Your task to perform on an android device: open app "Firefox Browser" (install if not already installed), go to login, and select forgot password Image 0: 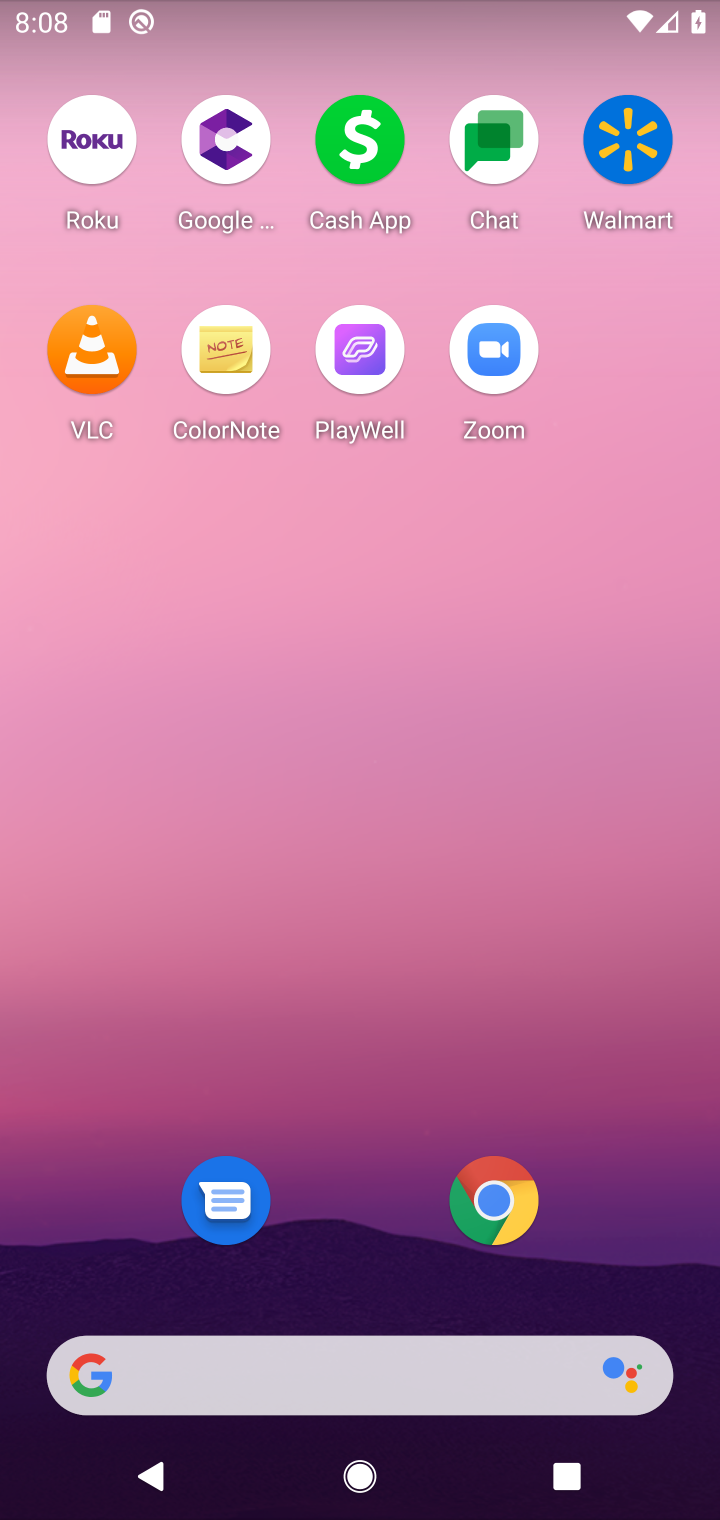
Step 0: drag from (349, 1005) to (299, 0)
Your task to perform on an android device: open app "Firefox Browser" (install if not already installed), go to login, and select forgot password Image 1: 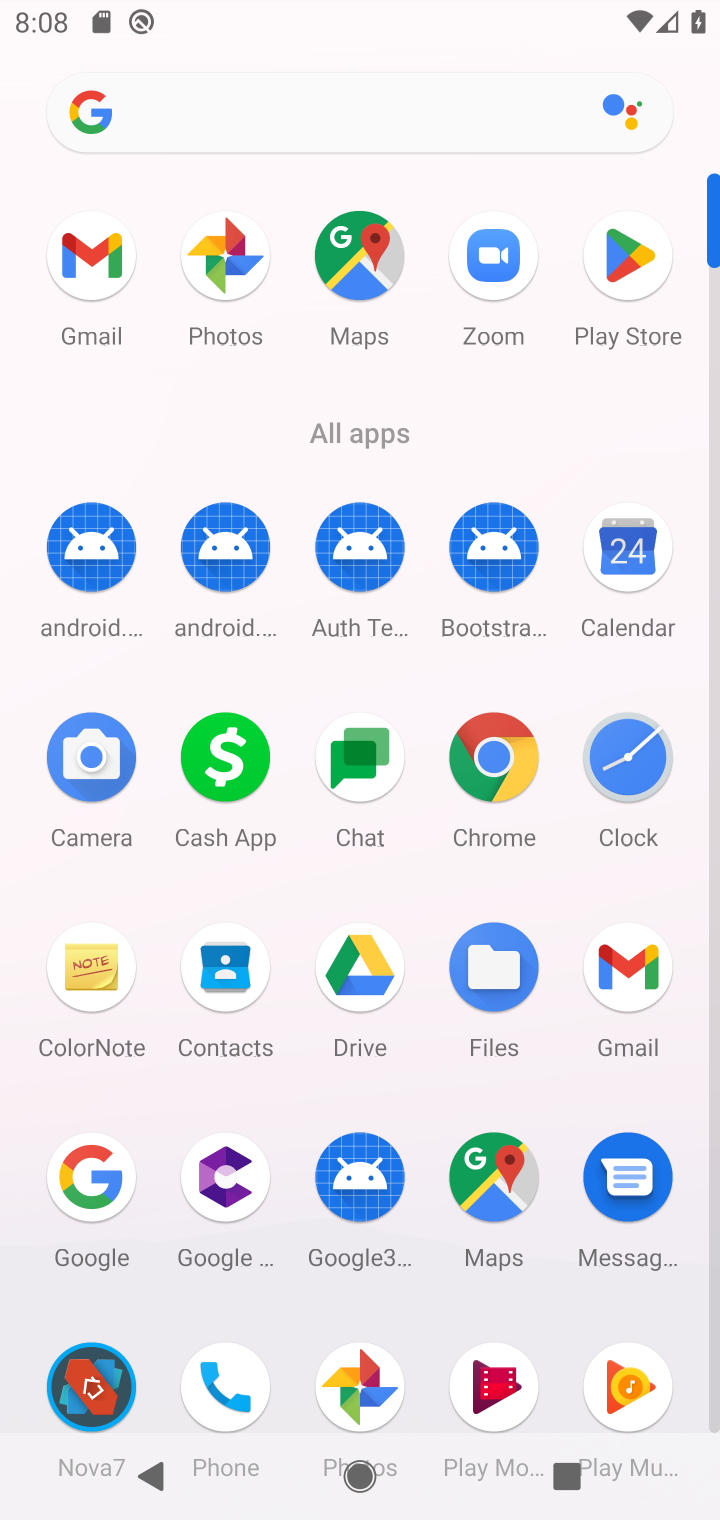
Step 1: click (647, 292)
Your task to perform on an android device: open app "Firefox Browser" (install if not already installed), go to login, and select forgot password Image 2: 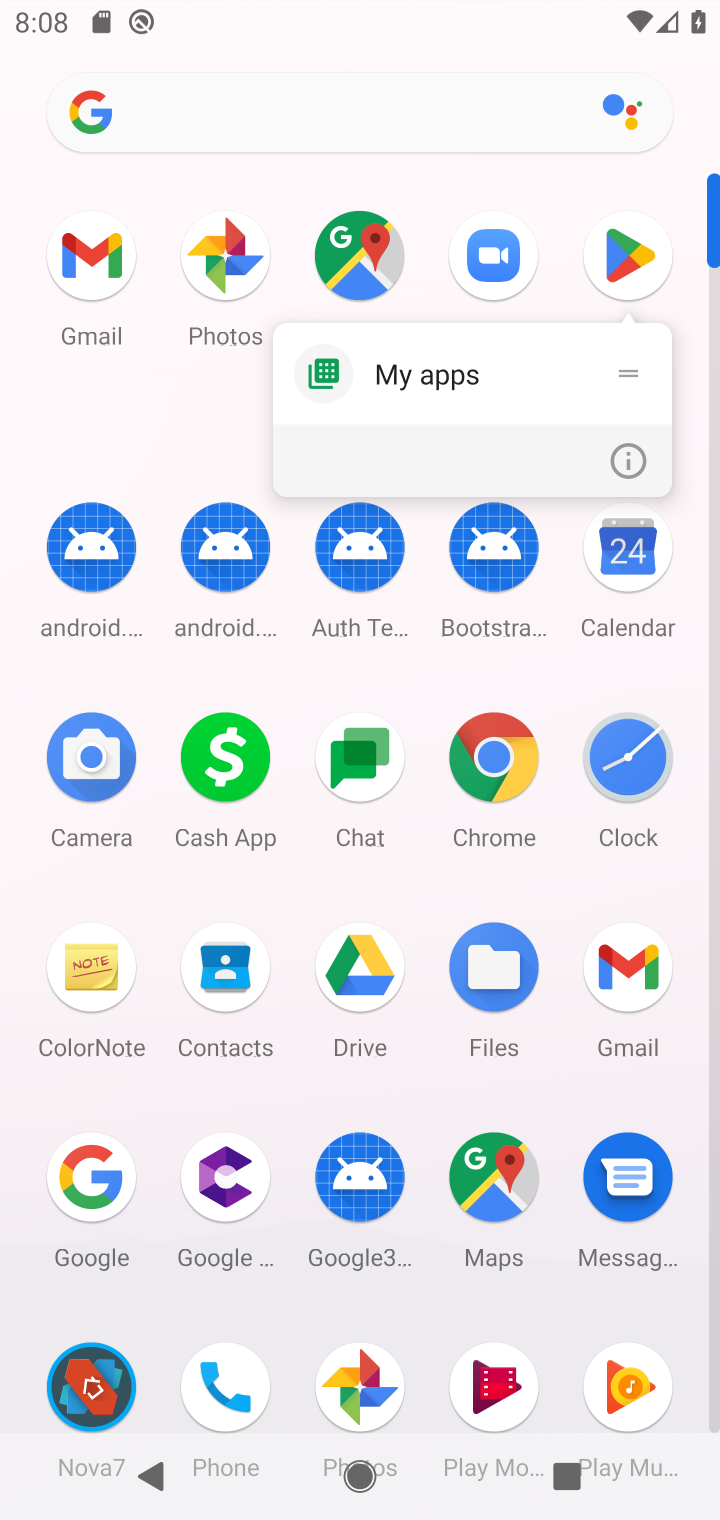
Step 2: click (615, 239)
Your task to perform on an android device: open app "Firefox Browser" (install if not already installed), go to login, and select forgot password Image 3: 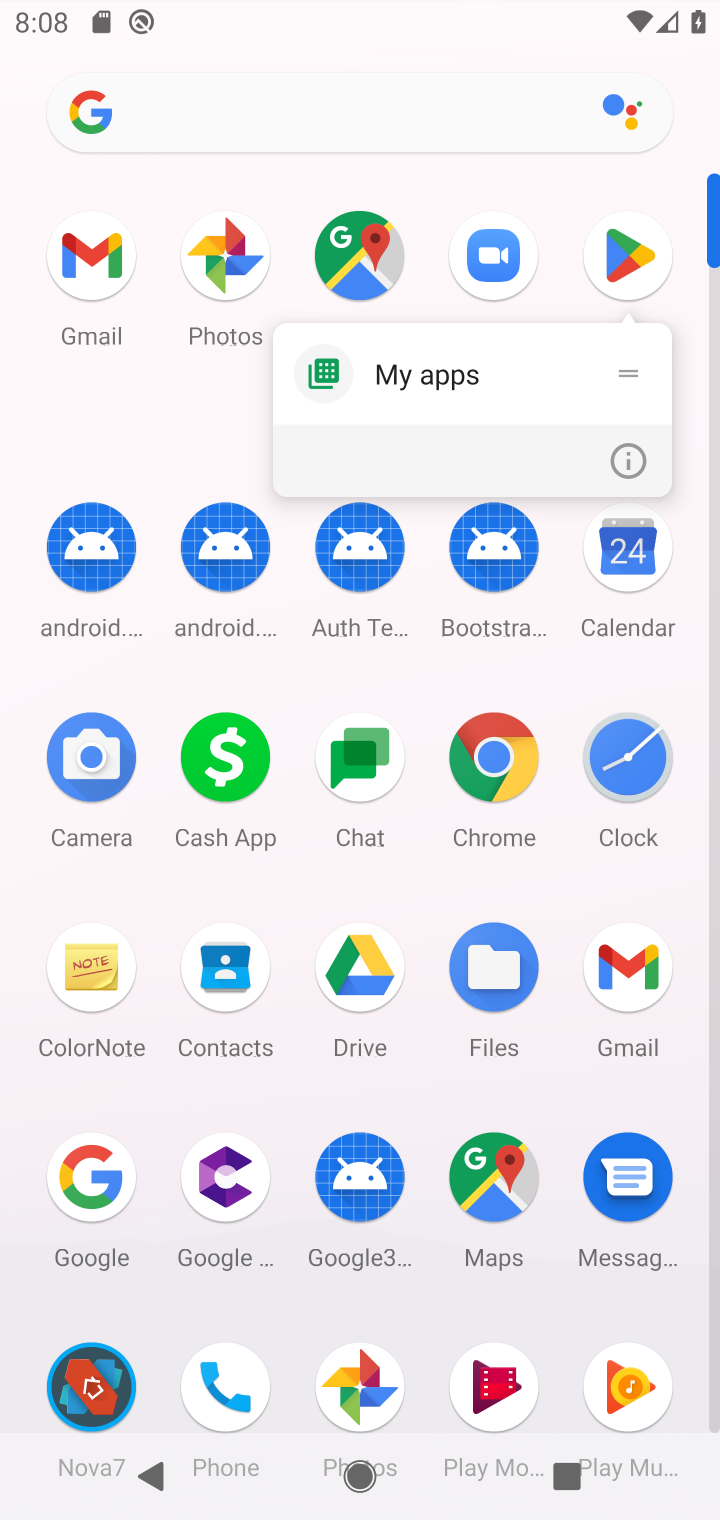
Step 3: click (606, 279)
Your task to perform on an android device: open app "Firefox Browser" (install if not already installed), go to login, and select forgot password Image 4: 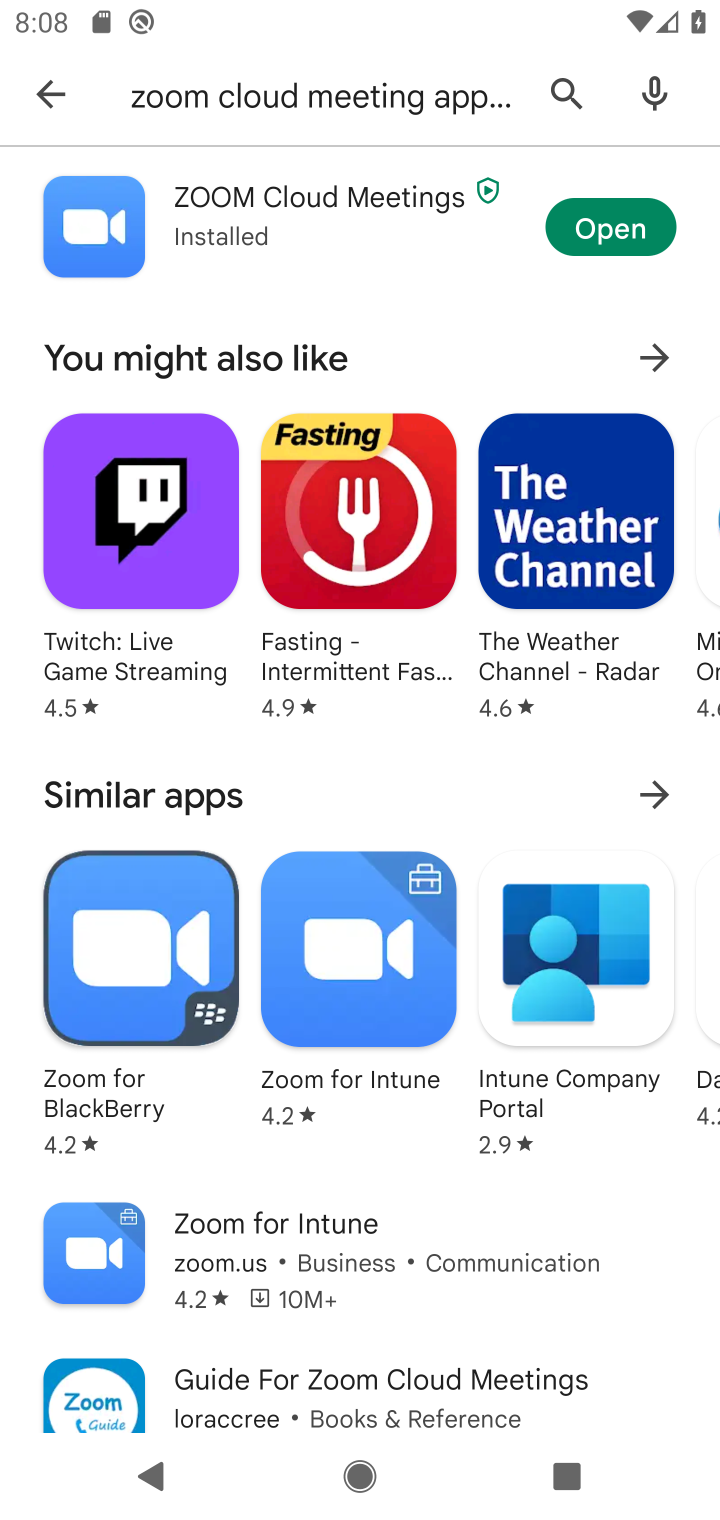
Step 4: click (601, 288)
Your task to perform on an android device: open app "Firefox Browser" (install if not already installed), go to login, and select forgot password Image 5: 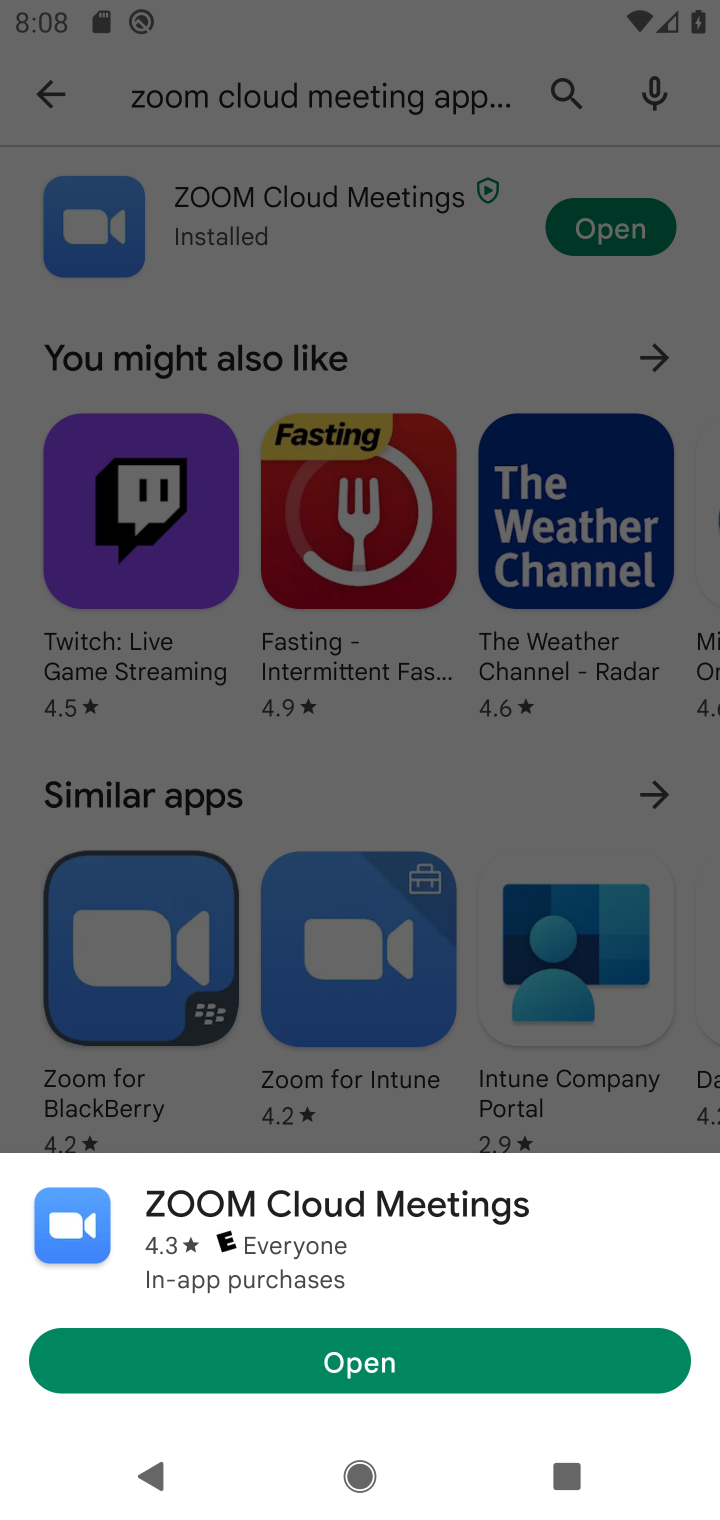
Step 5: click (581, 307)
Your task to perform on an android device: open app "Firefox Browser" (install if not already installed), go to login, and select forgot password Image 6: 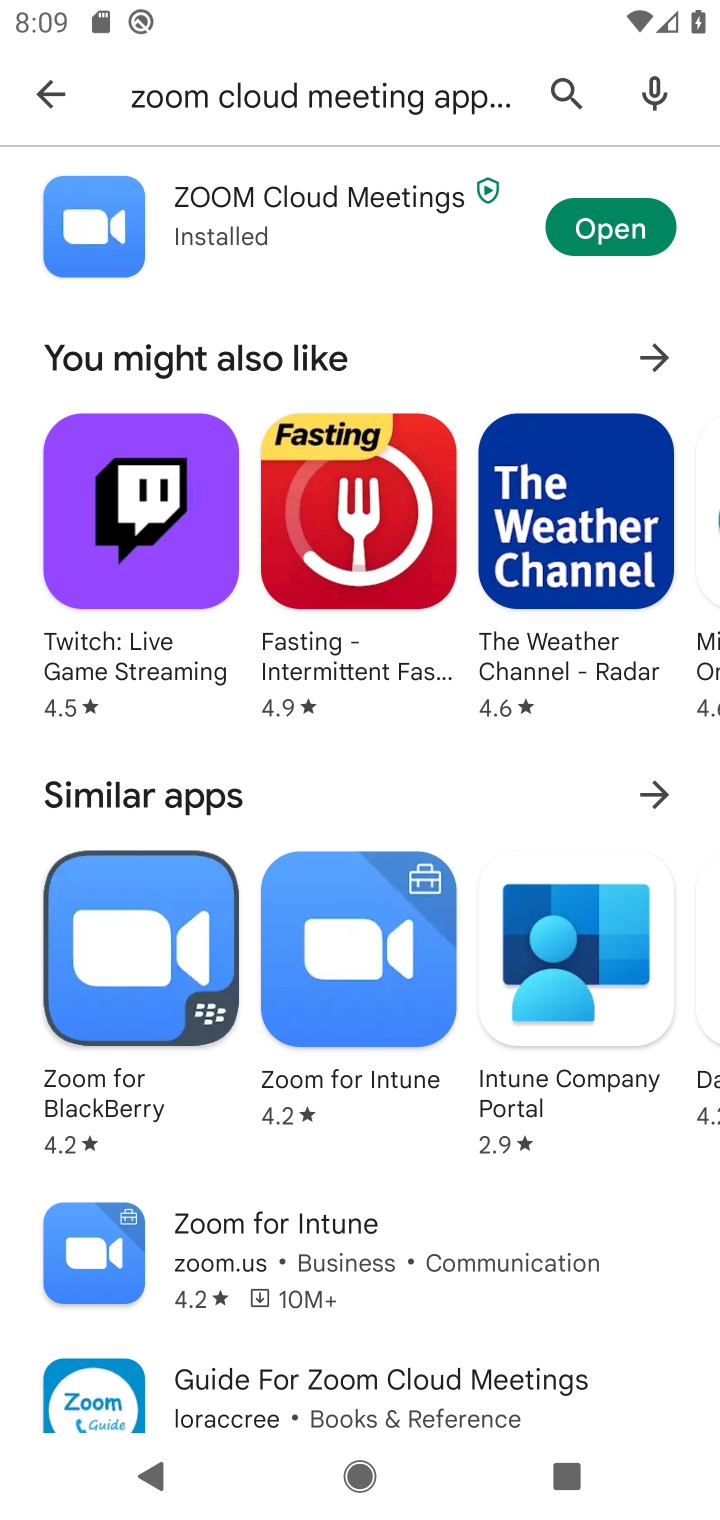
Step 6: click (72, 89)
Your task to perform on an android device: open app "Firefox Browser" (install if not already installed), go to login, and select forgot password Image 7: 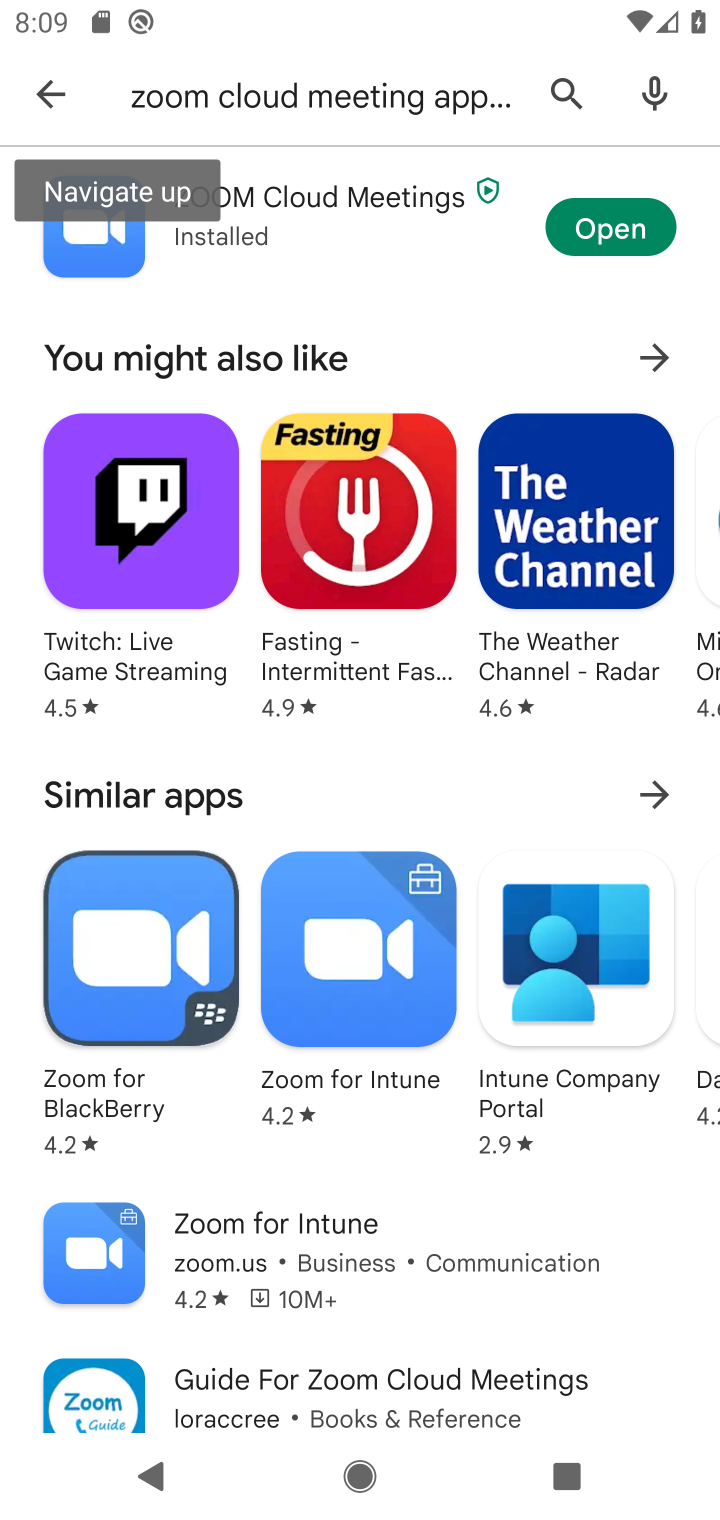
Step 7: click (359, 97)
Your task to perform on an android device: open app "Firefox Browser" (install if not already installed), go to login, and select forgot password Image 8: 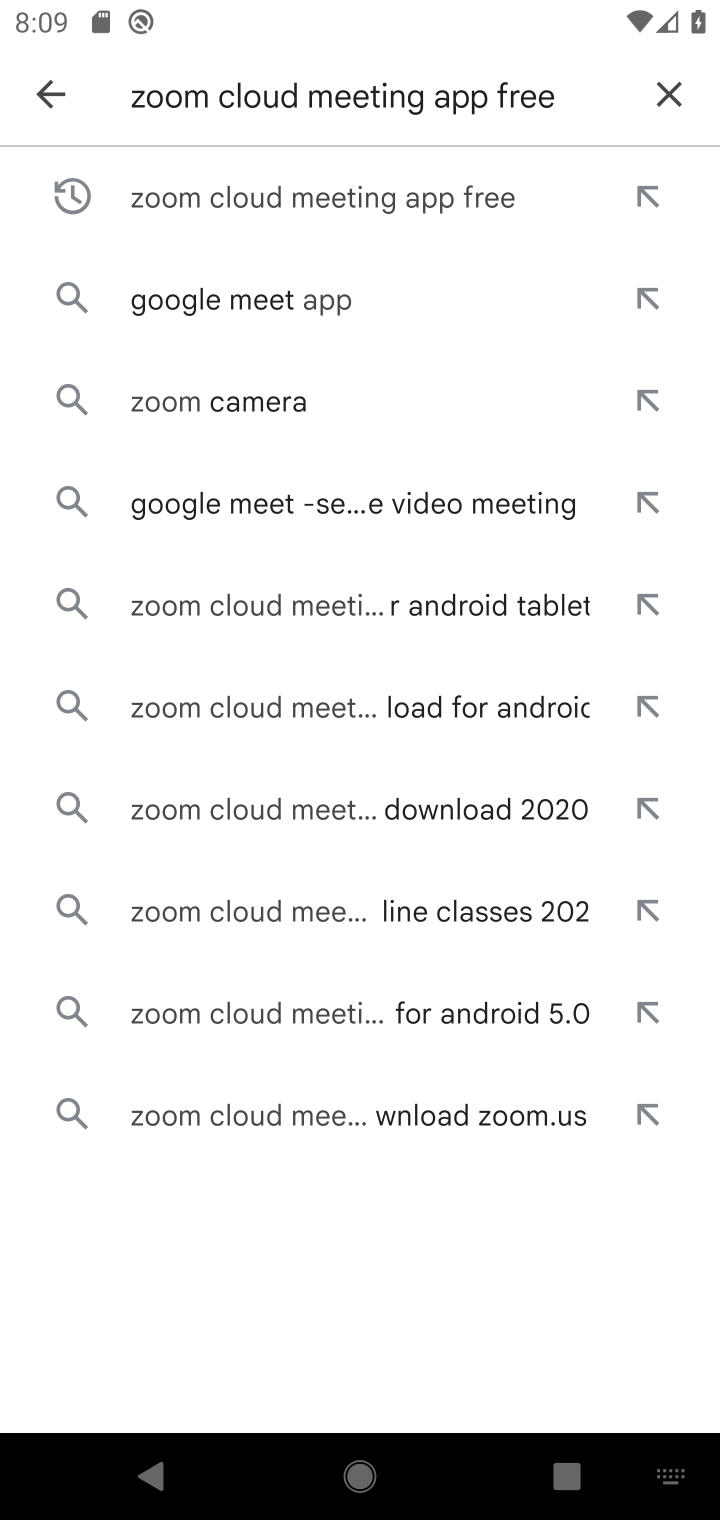
Step 8: click (655, 84)
Your task to perform on an android device: open app "Firefox Browser" (install if not already installed), go to login, and select forgot password Image 9: 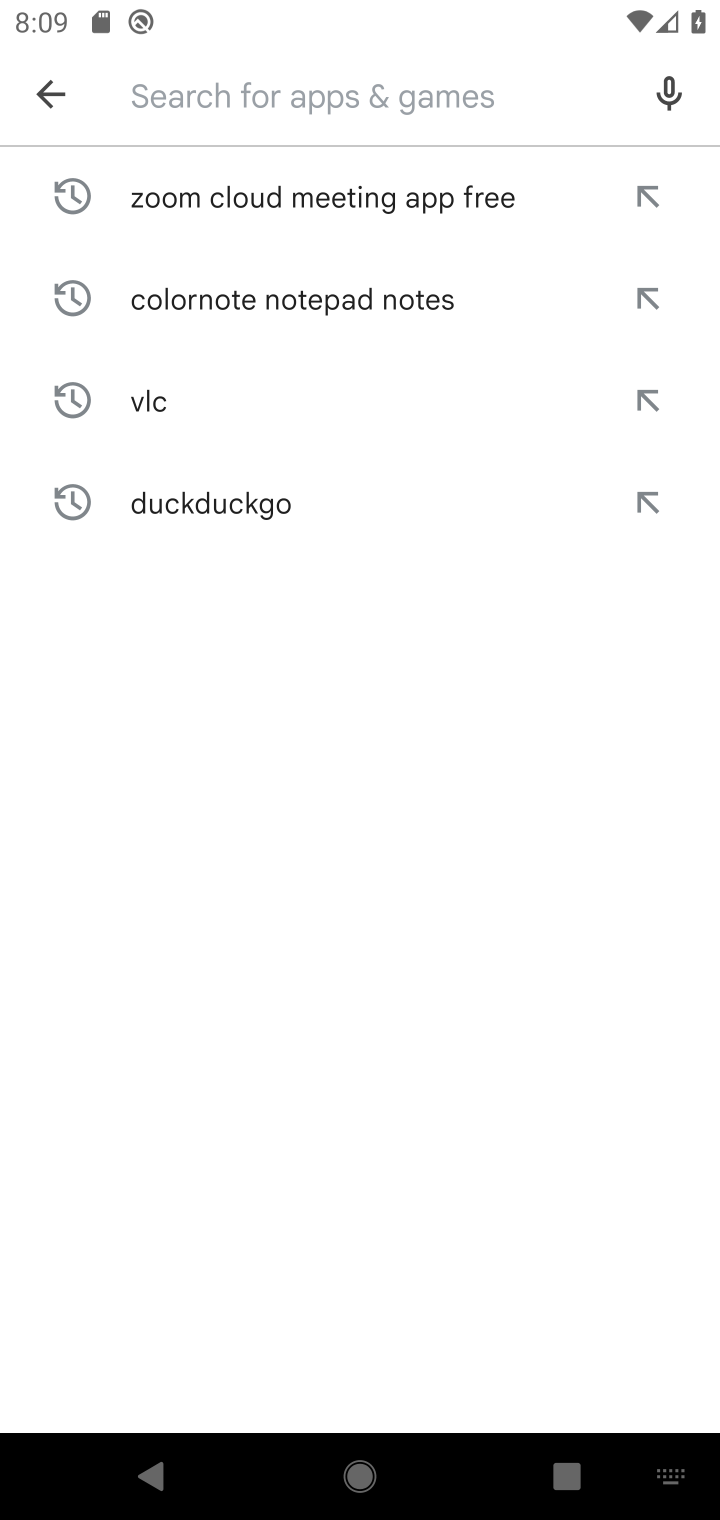
Step 9: type "firefox browser"
Your task to perform on an android device: open app "Firefox Browser" (install if not already installed), go to login, and select forgot password Image 10: 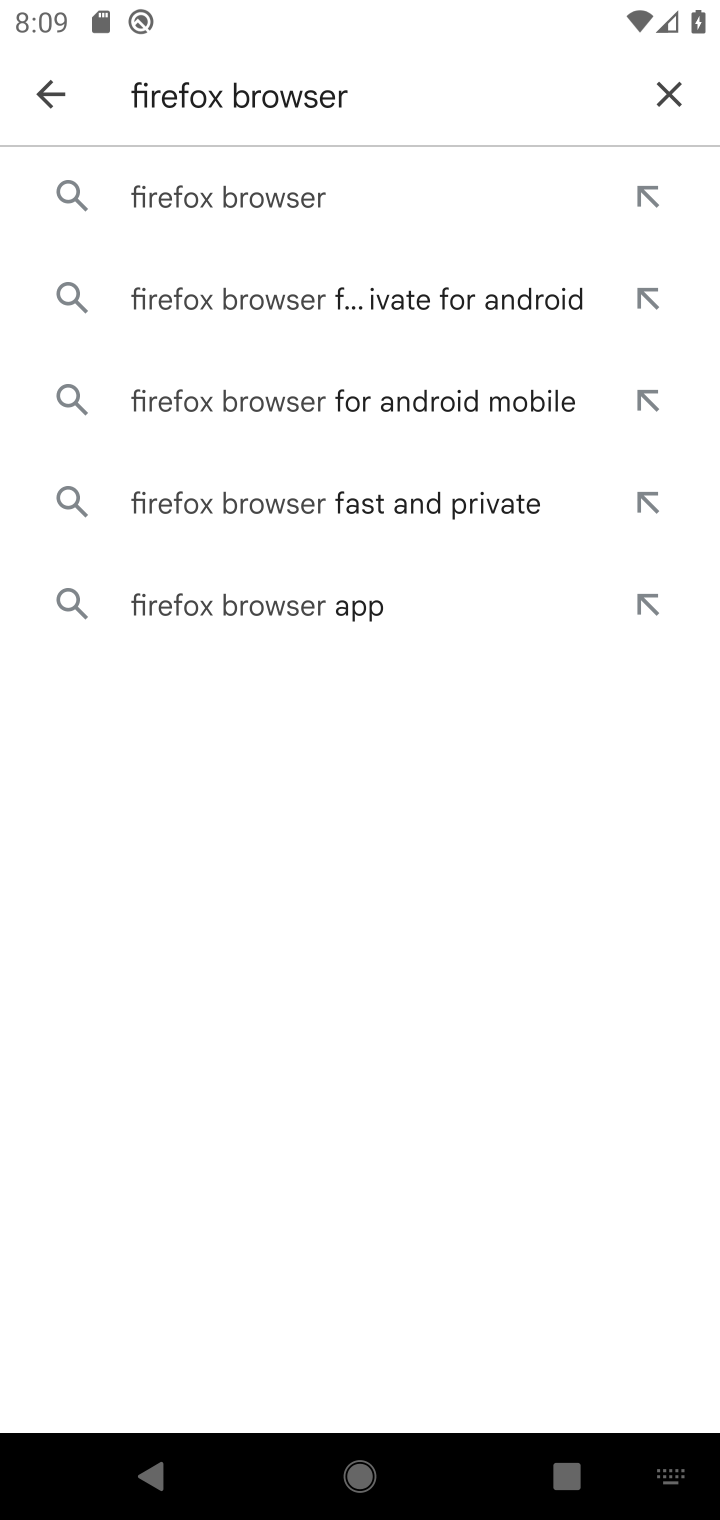
Step 10: click (297, 215)
Your task to perform on an android device: open app "Firefox Browser" (install if not already installed), go to login, and select forgot password Image 11: 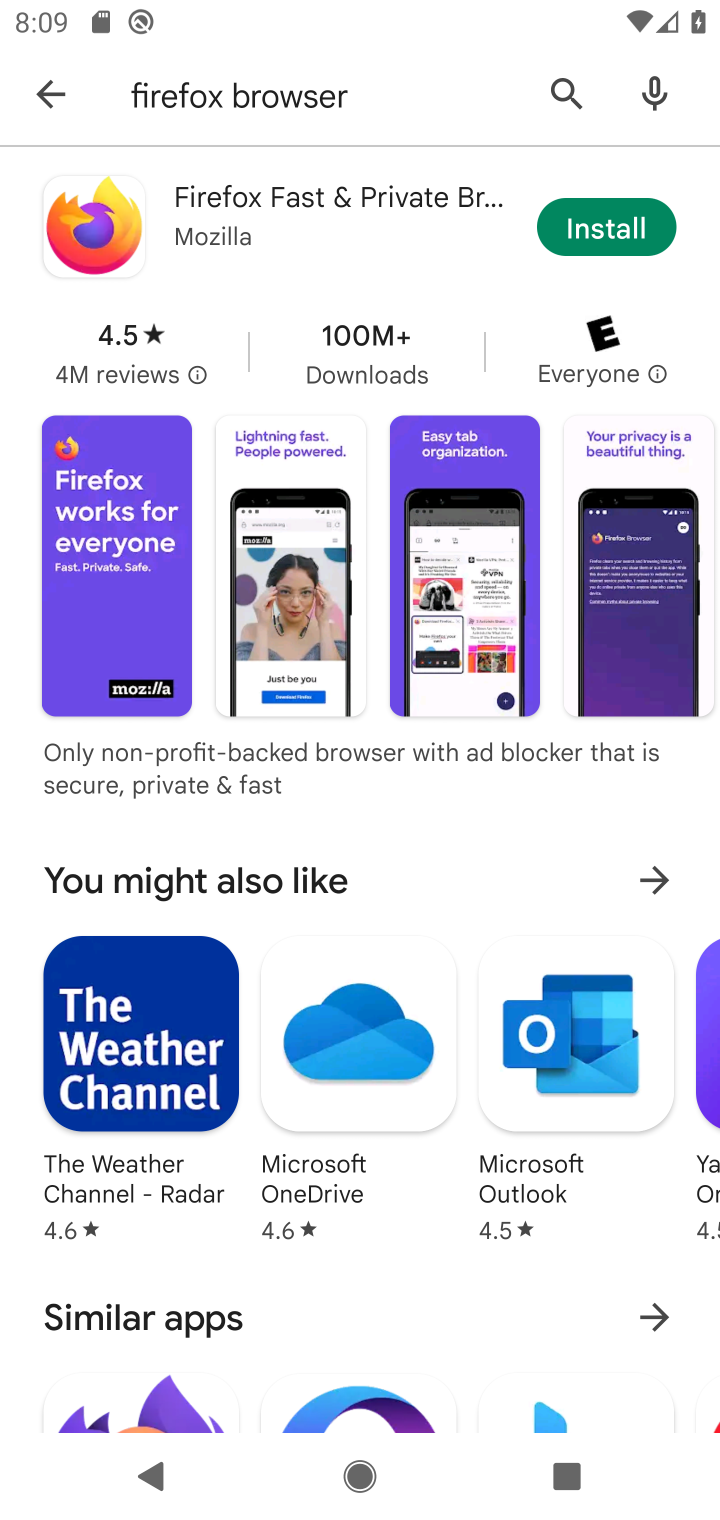
Step 11: click (614, 198)
Your task to perform on an android device: open app "Firefox Browser" (install if not already installed), go to login, and select forgot password Image 12: 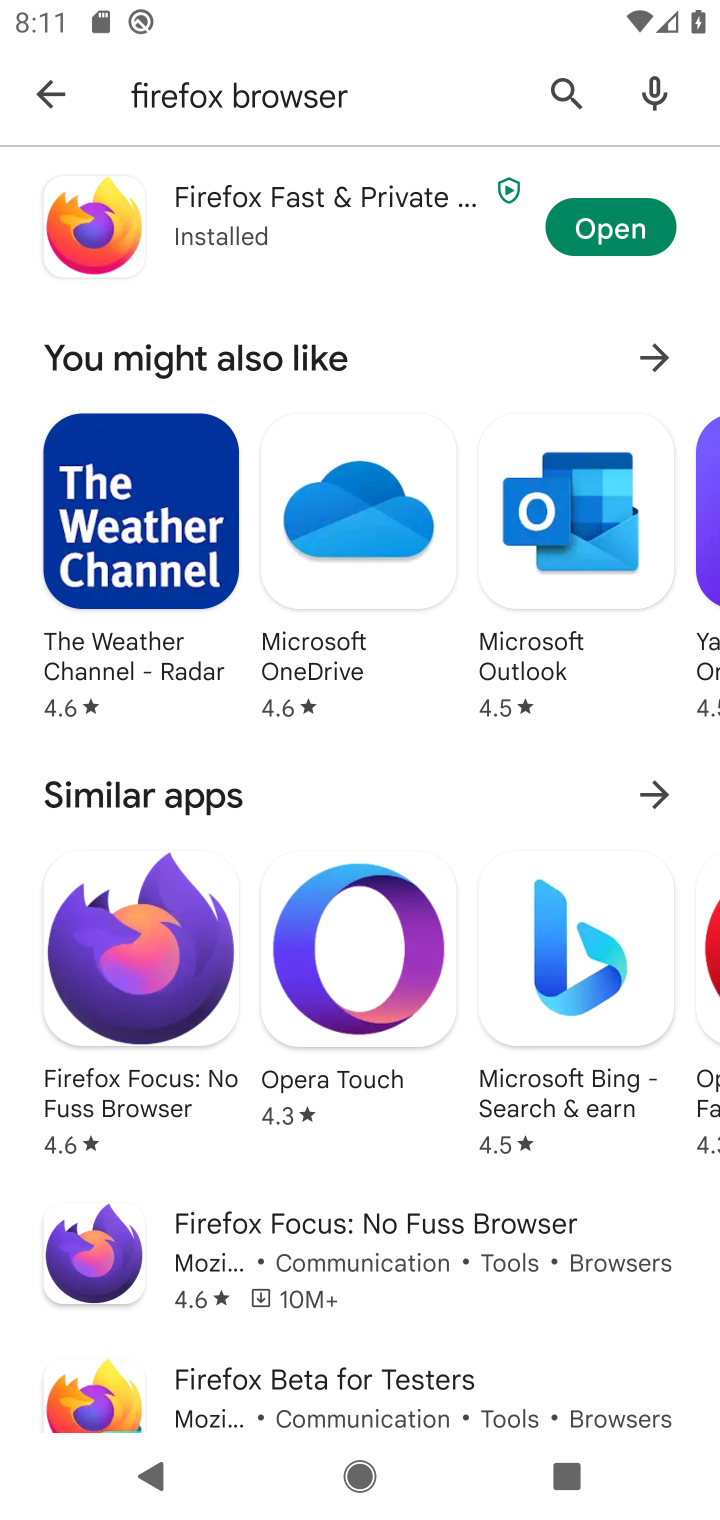
Step 12: click (575, 238)
Your task to perform on an android device: open app "Firefox Browser" (install if not already installed), go to login, and select forgot password Image 13: 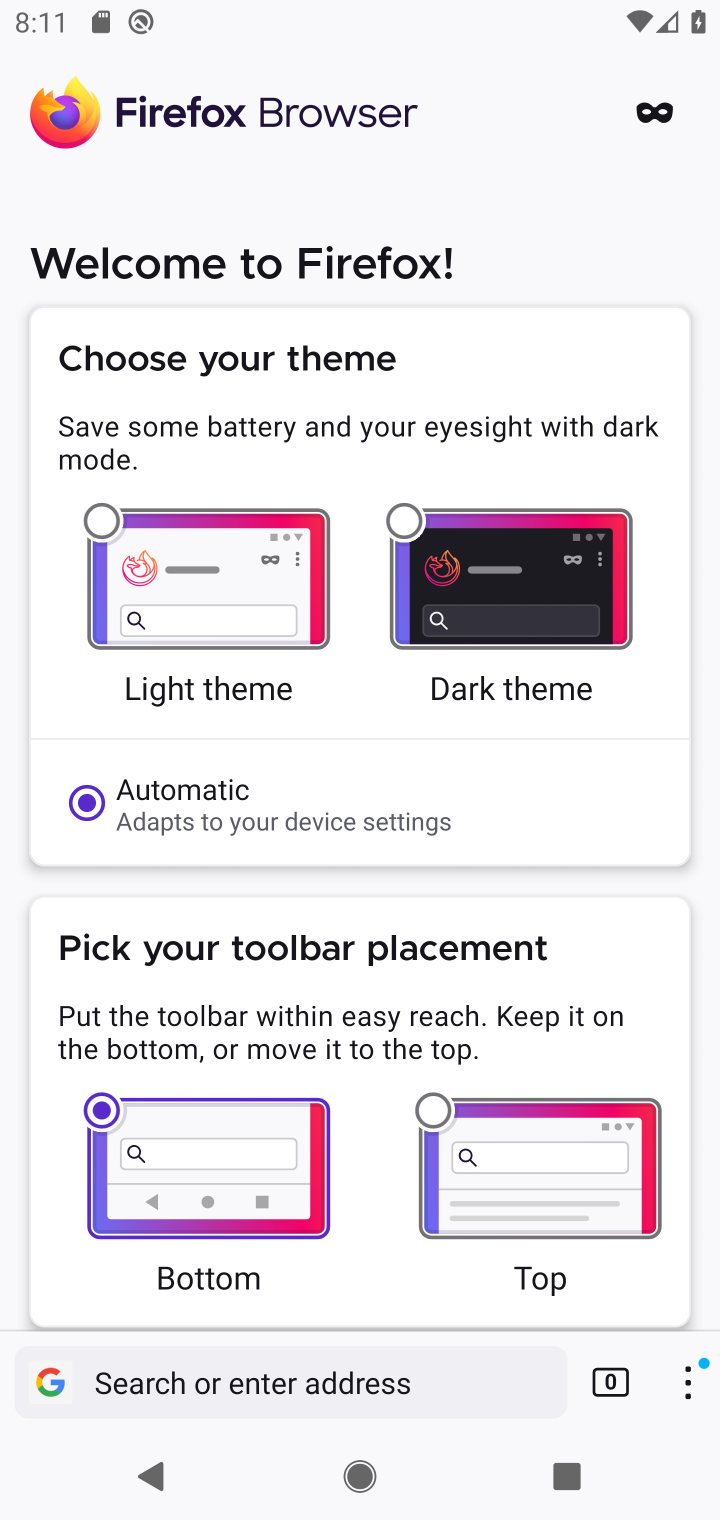
Step 13: drag from (274, 1043) to (344, 558)
Your task to perform on an android device: open app "Firefox Browser" (install if not already installed), go to login, and select forgot password Image 14: 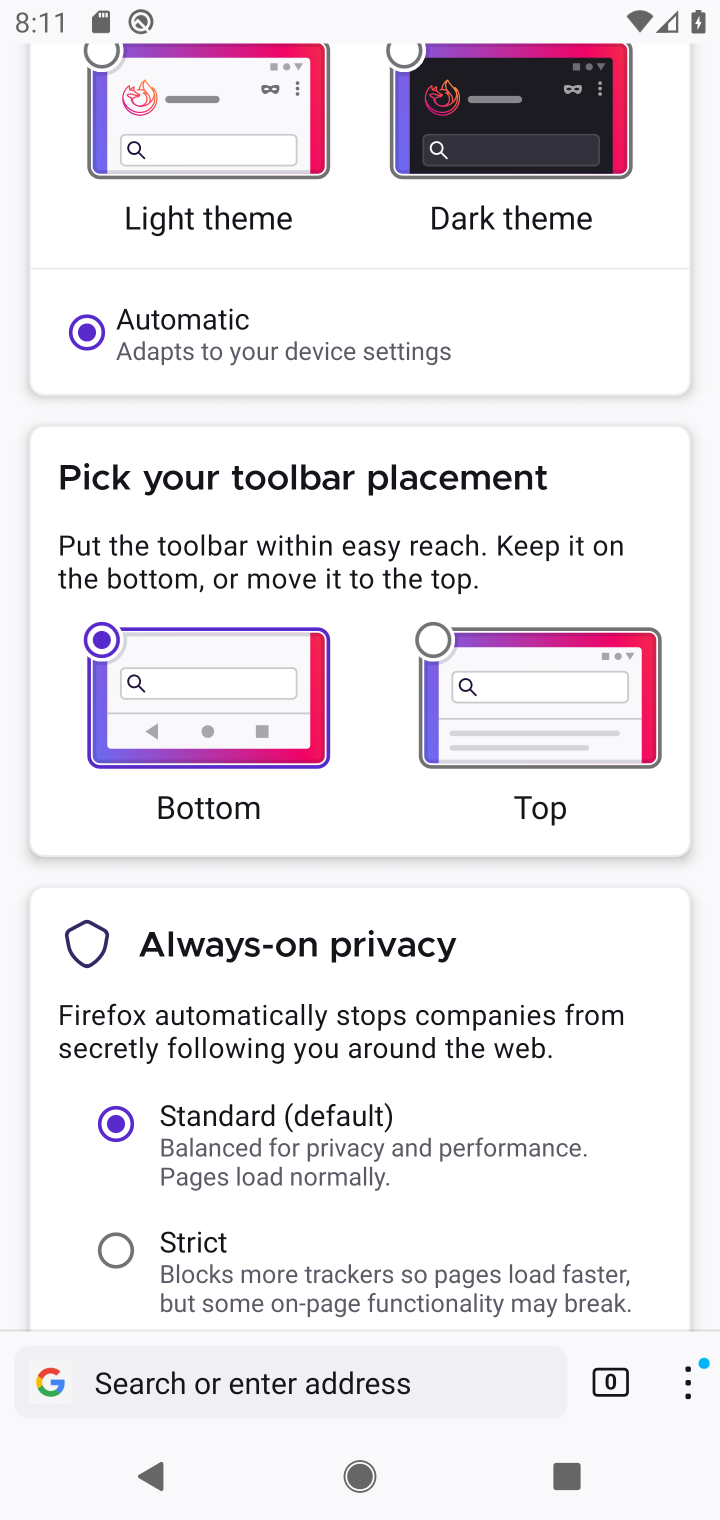
Step 14: drag from (353, 1116) to (428, 7)
Your task to perform on an android device: open app "Firefox Browser" (install if not already installed), go to login, and select forgot password Image 15: 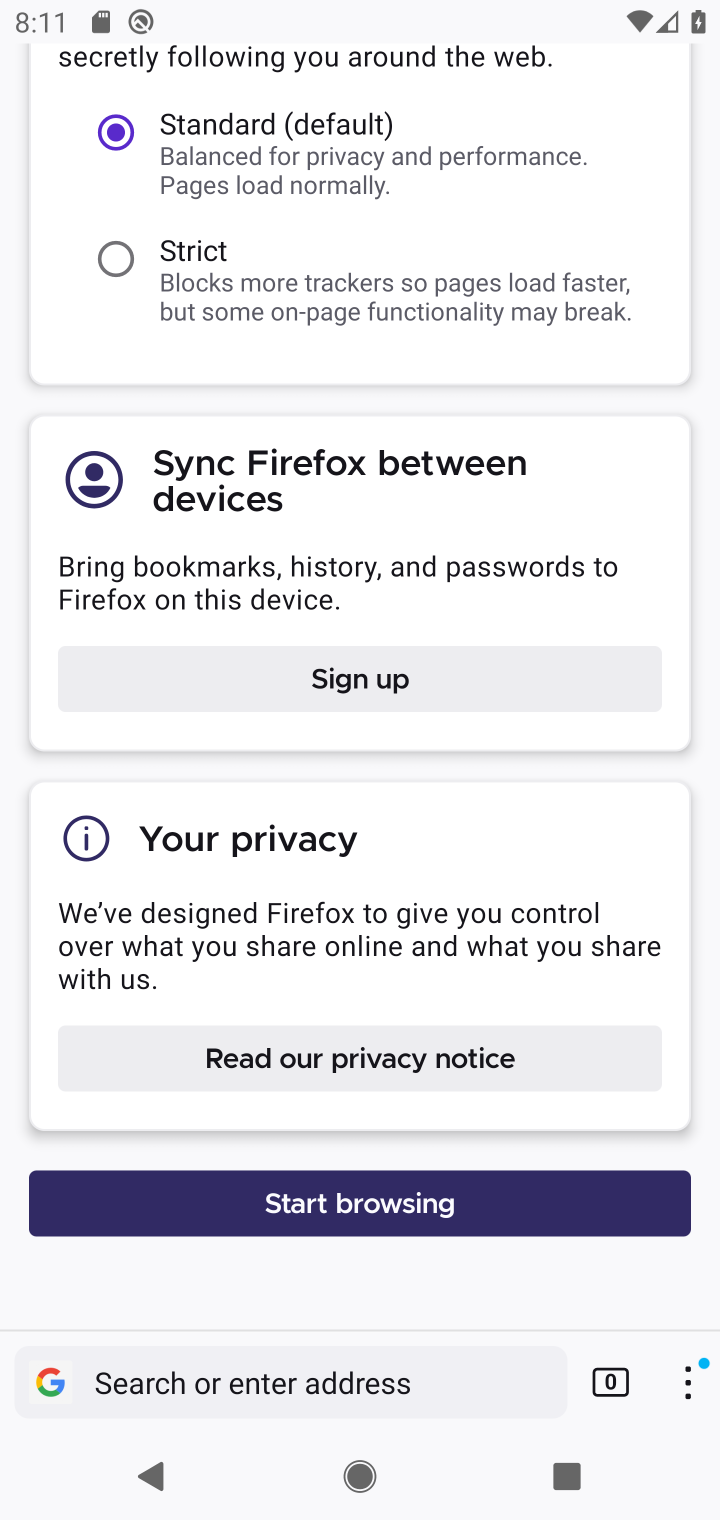
Step 15: drag from (336, 1169) to (473, 457)
Your task to perform on an android device: open app "Firefox Browser" (install if not already installed), go to login, and select forgot password Image 16: 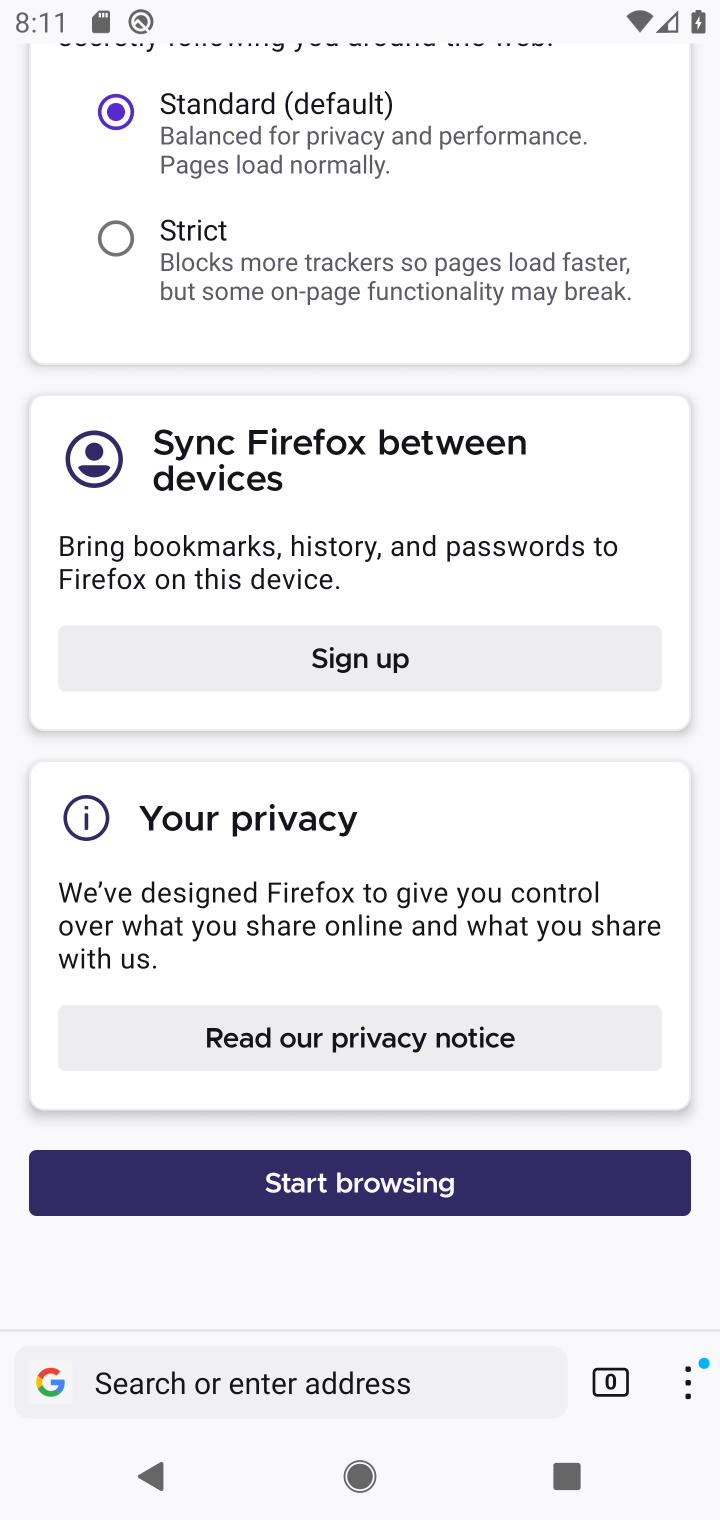
Step 16: click (389, 653)
Your task to perform on an android device: open app "Firefox Browser" (install if not already installed), go to login, and select forgot password Image 17: 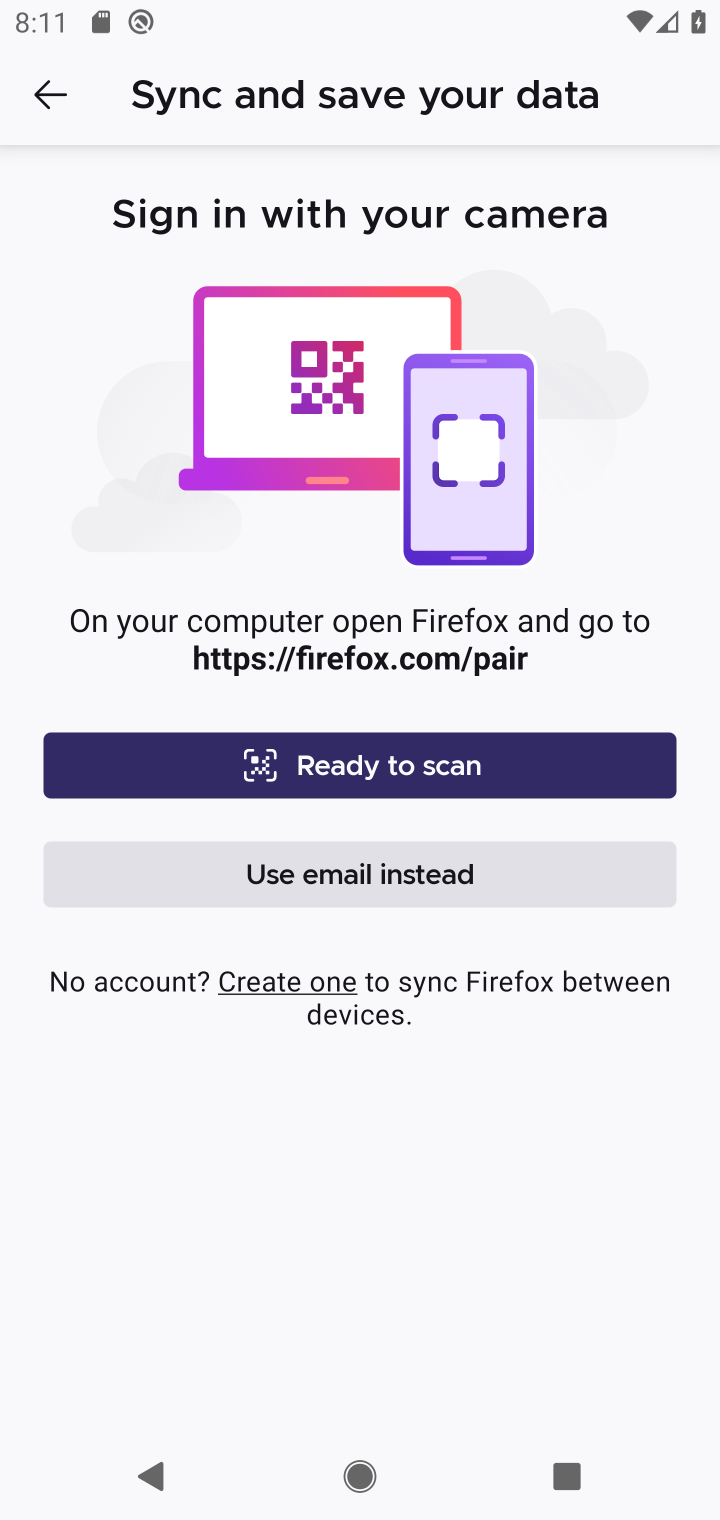
Step 17: click (356, 886)
Your task to perform on an android device: open app "Firefox Browser" (install if not already installed), go to login, and select forgot password Image 18: 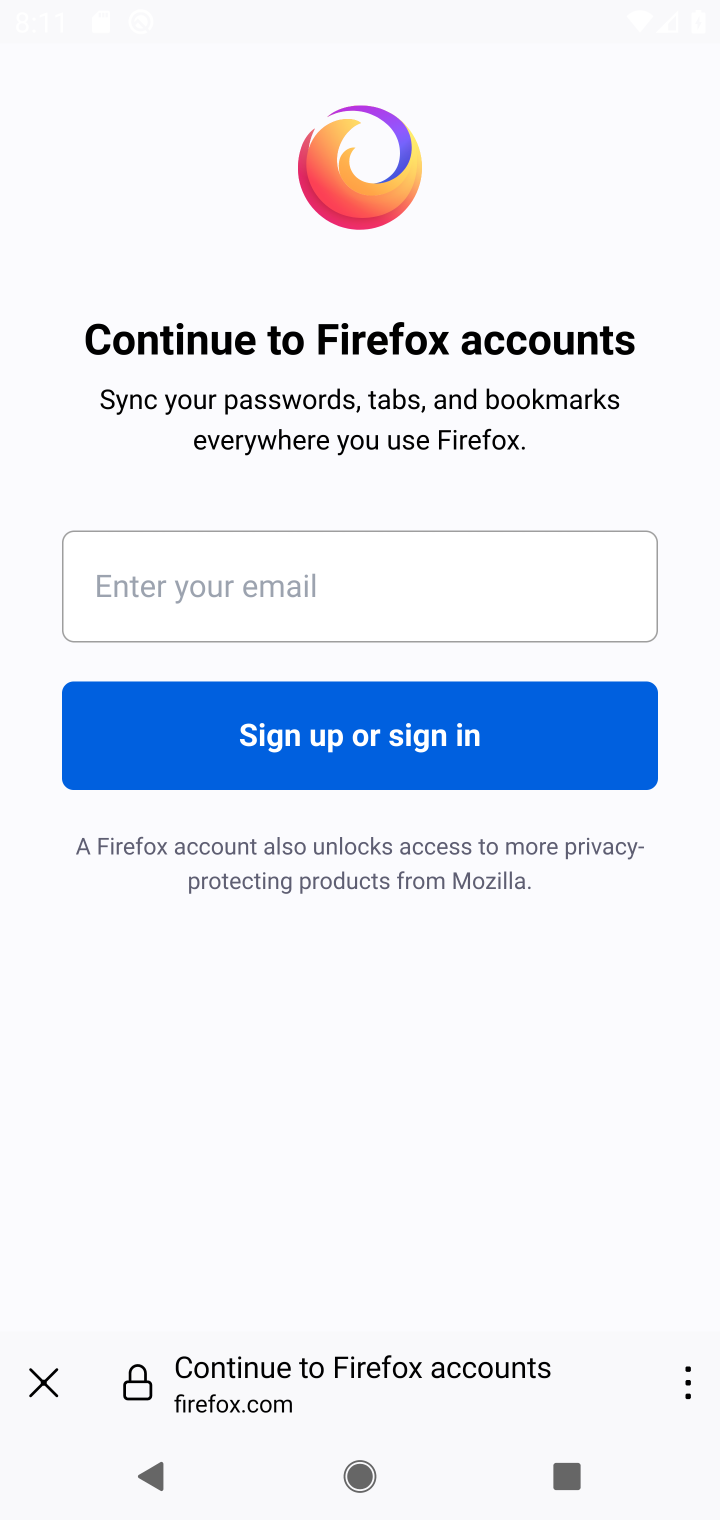
Step 18: task complete